Your task to perform on an android device: turn on airplane mode Image 0: 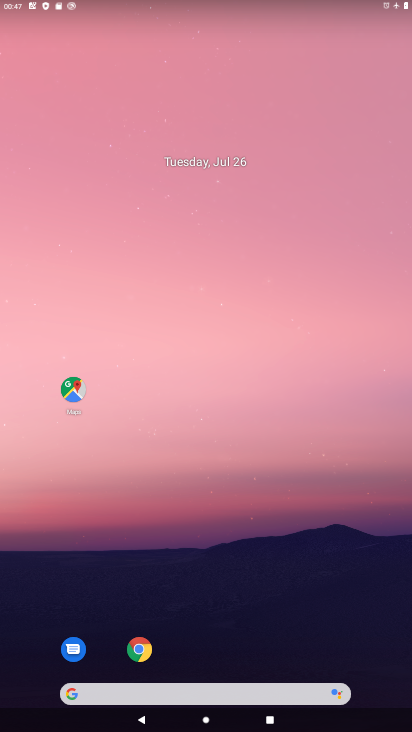
Step 0: drag from (230, 724) to (190, 128)
Your task to perform on an android device: turn on airplane mode Image 1: 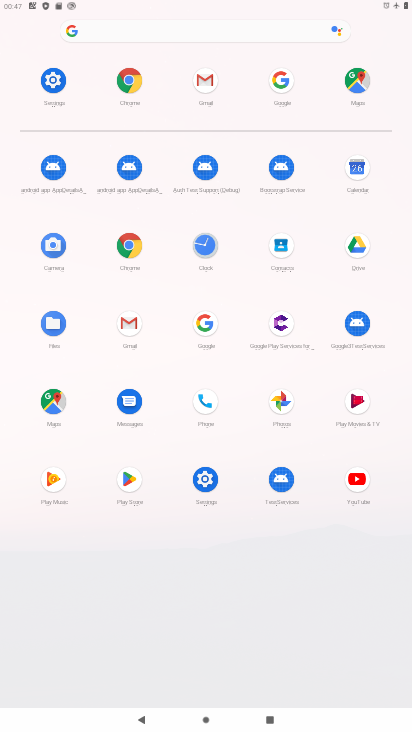
Step 1: click (48, 75)
Your task to perform on an android device: turn on airplane mode Image 2: 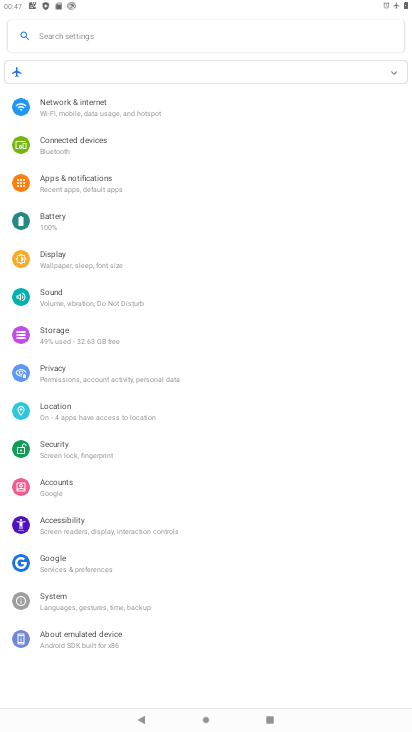
Step 2: click (62, 106)
Your task to perform on an android device: turn on airplane mode Image 3: 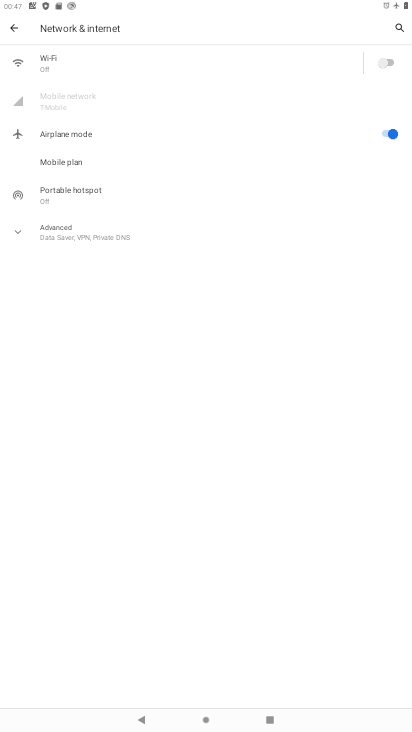
Step 3: task complete